Your task to perform on an android device: Open Youtube and go to the subscriptions tab Image 0: 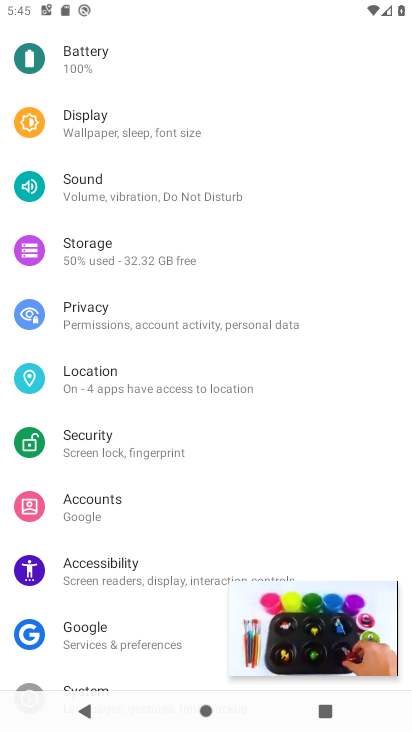
Step 0: press home button
Your task to perform on an android device: Open Youtube and go to the subscriptions tab Image 1: 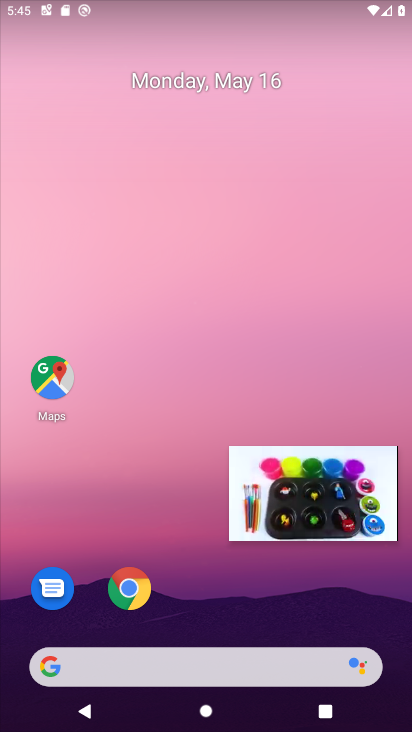
Step 1: drag from (191, 591) to (206, 27)
Your task to perform on an android device: Open Youtube and go to the subscriptions tab Image 2: 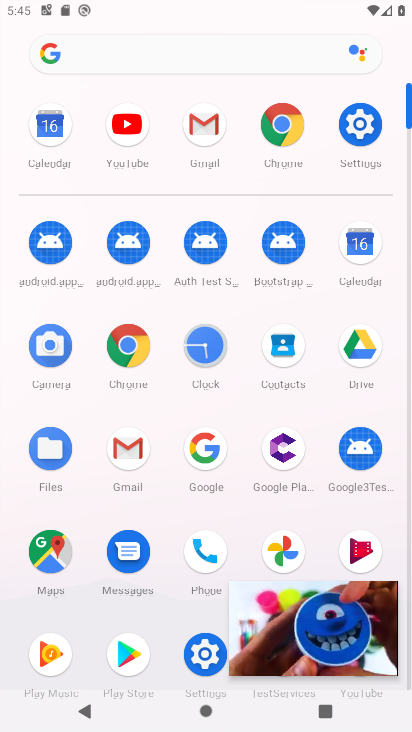
Step 2: click (129, 140)
Your task to perform on an android device: Open Youtube and go to the subscriptions tab Image 3: 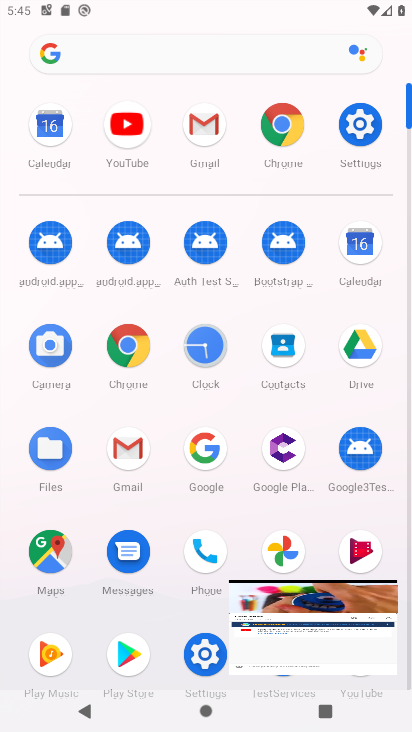
Step 3: click (128, 130)
Your task to perform on an android device: Open Youtube and go to the subscriptions tab Image 4: 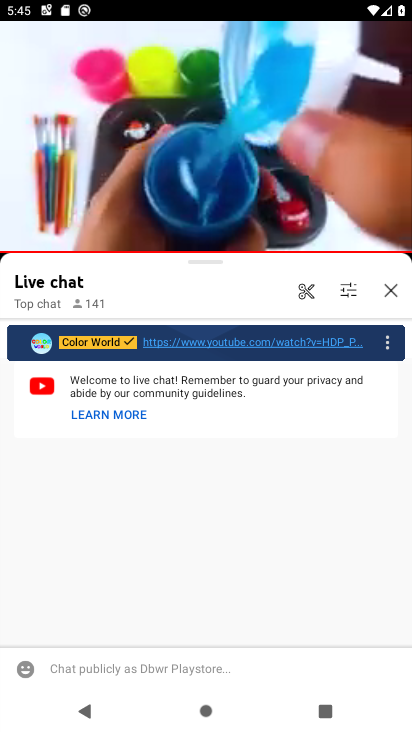
Step 4: click (201, 142)
Your task to perform on an android device: Open Youtube and go to the subscriptions tab Image 5: 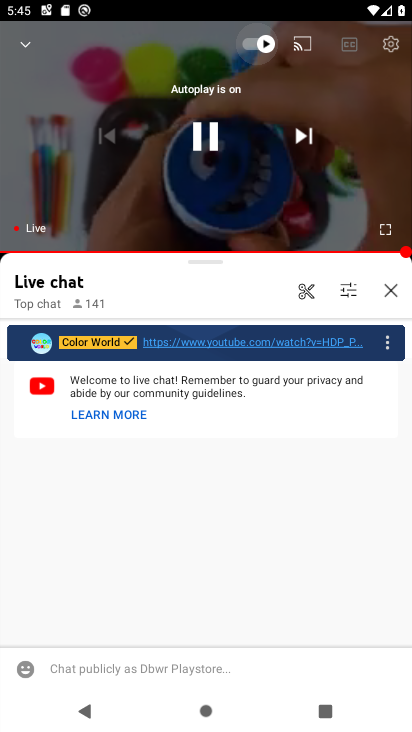
Step 5: click (215, 126)
Your task to perform on an android device: Open Youtube and go to the subscriptions tab Image 6: 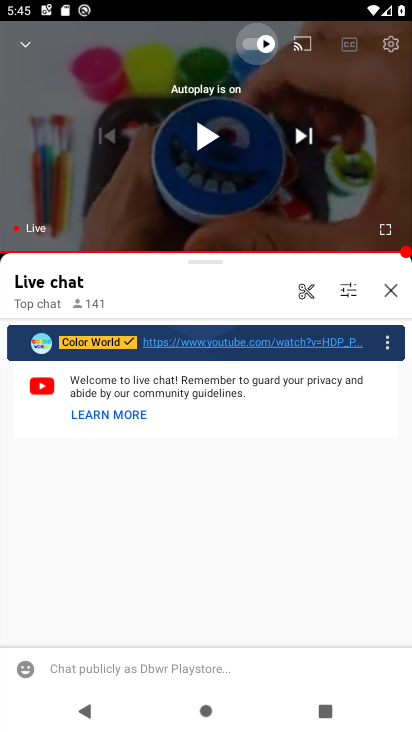
Step 6: press back button
Your task to perform on an android device: Open Youtube and go to the subscriptions tab Image 7: 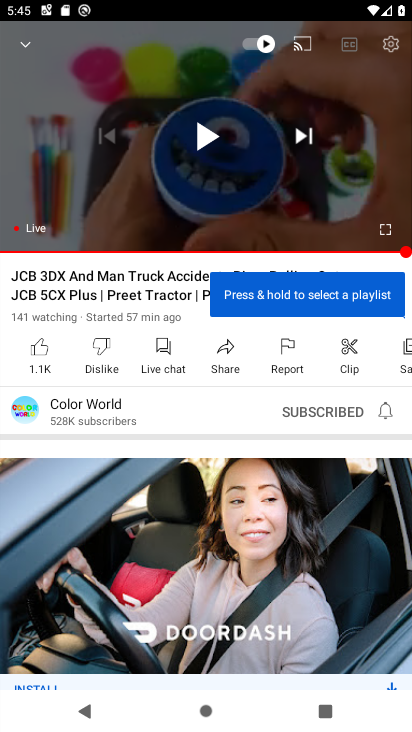
Step 7: press back button
Your task to perform on an android device: Open Youtube and go to the subscriptions tab Image 8: 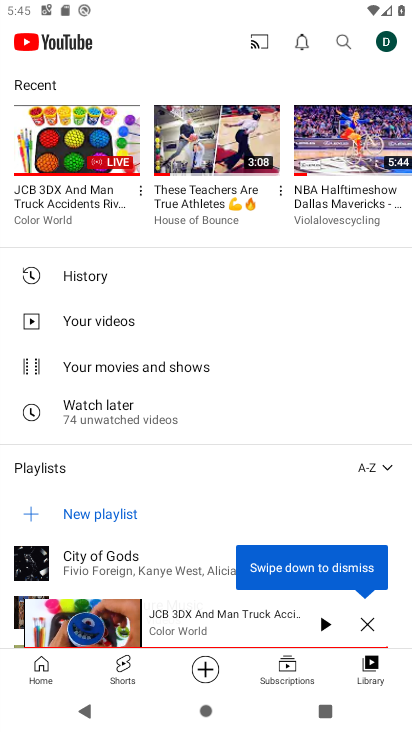
Step 8: click (285, 665)
Your task to perform on an android device: Open Youtube and go to the subscriptions tab Image 9: 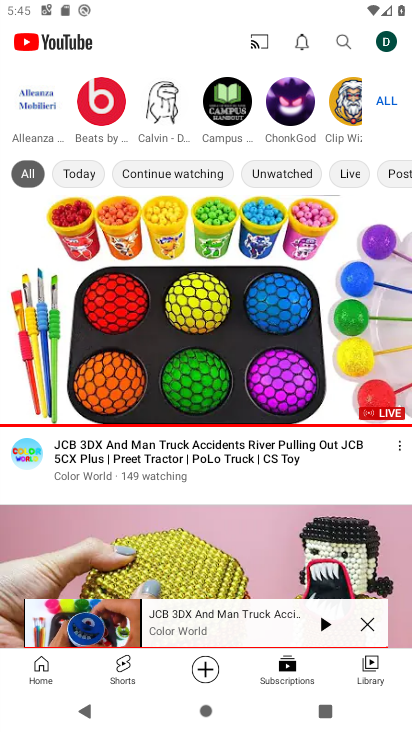
Step 9: task complete